Your task to perform on an android device: toggle notification dots Image 0: 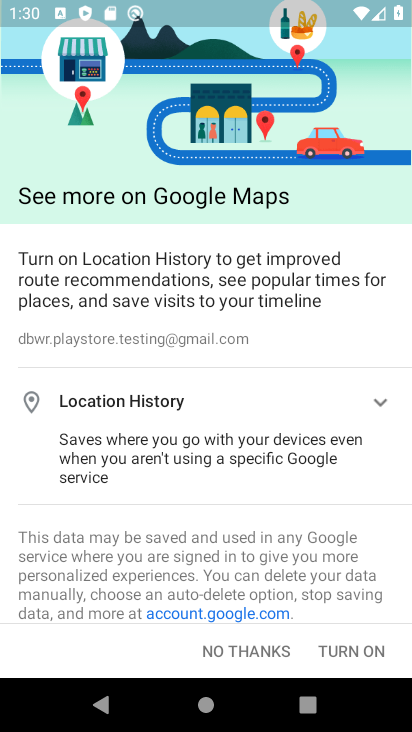
Step 0: click (326, 653)
Your task to perform on an android device: toggle notification dots Image 1: 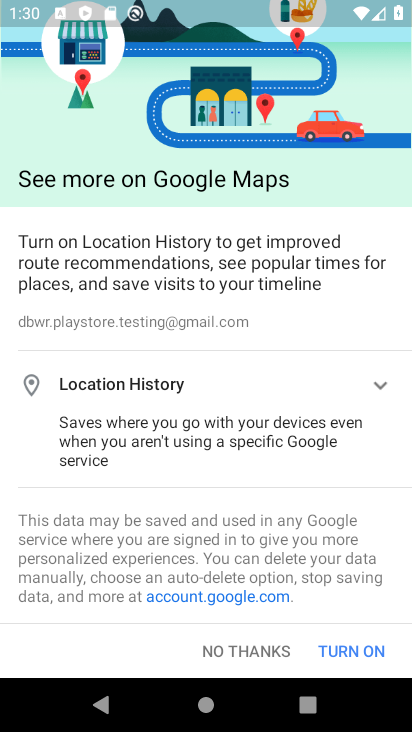
Step 1: click (326, 653)
Your task to perform on an android device: toggle notification dots Image 2: 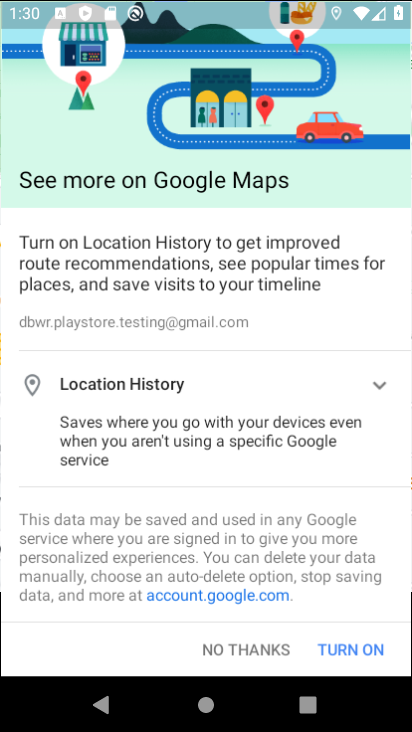
Step 2: click (271, 648)
Your task to perform on an android device: toggle notification dots Image 3: 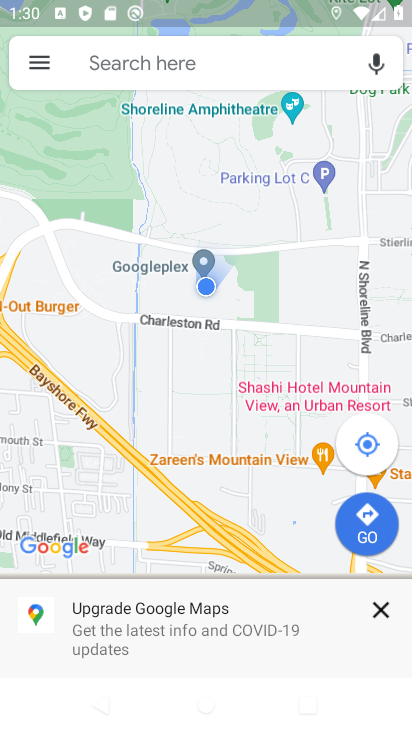
Step 3: click (381, 609)
Your task to perform on an android device: toggle notification dots Image 4: 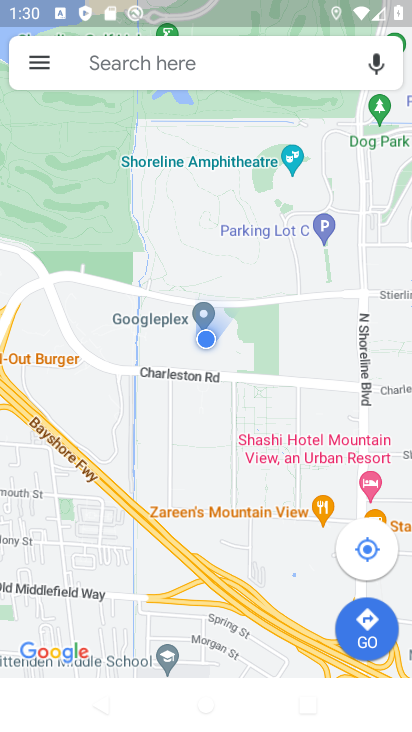
Step 4: press home button
Your task to perform on an android device: toggle notification dots Image 5: 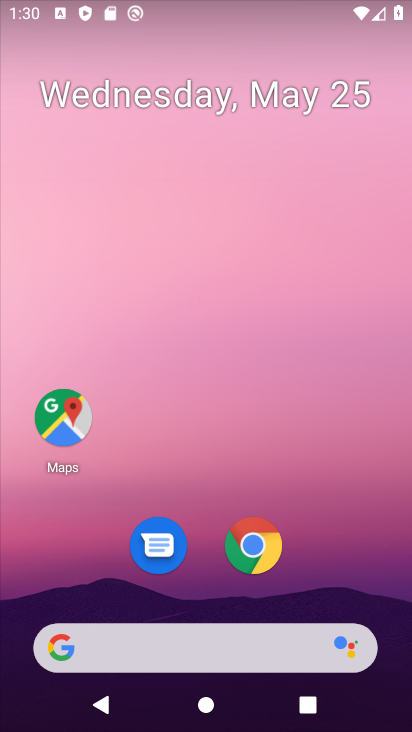
Step 5: drag from (341, 583) to (278, 84)
Your task to perform on an android device: toggle notification dots Image 6: 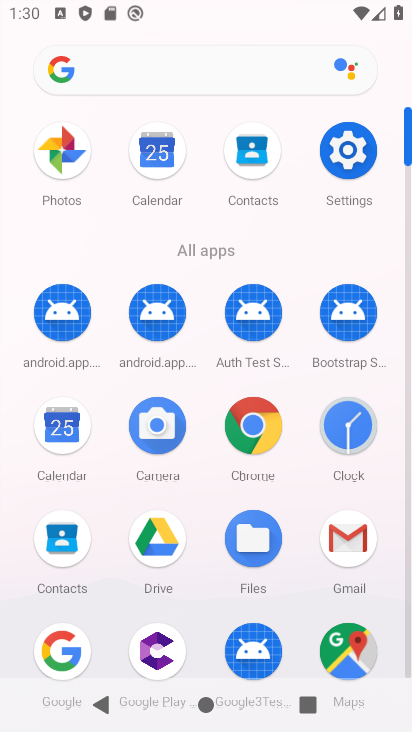
Step 6: click (334, 153)
Your task to perform on an android device: toggle notification dots Image 7: 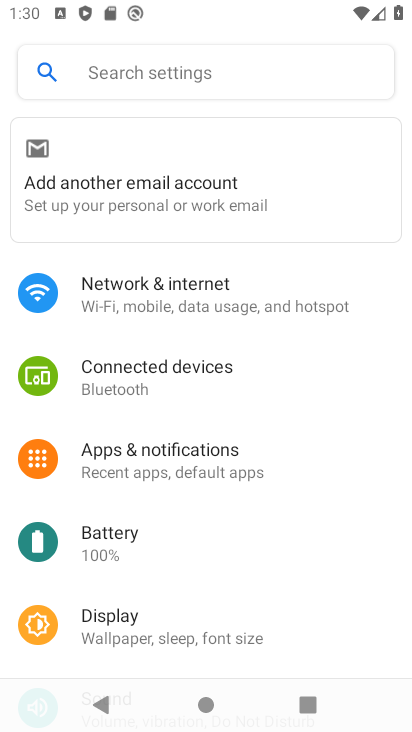
Step 7: click (272, 465)
Your task to perform on an android device: toggle notification dots Image 8: 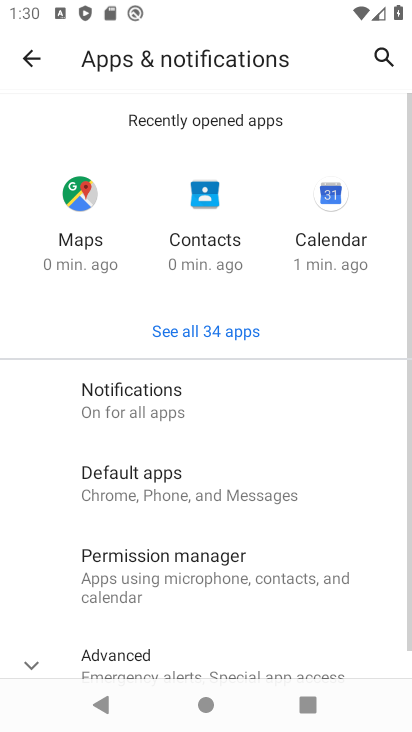
Step 8: drag from (263, 536) to (263, 341)
Your task to perform on an android device: toggle notification dots Image 9: 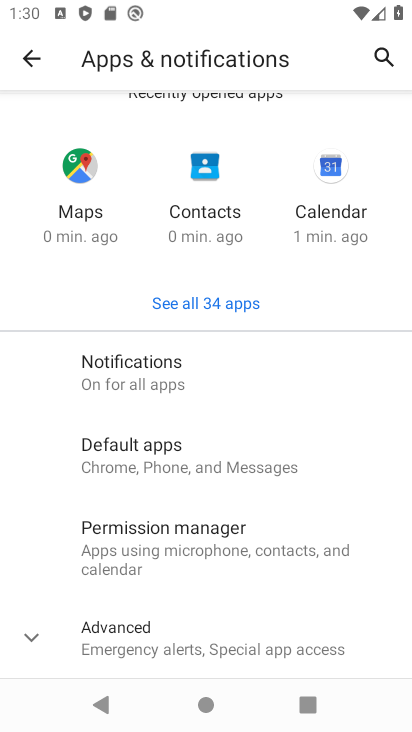
Step 9: click (263, 341)
Your task to perform on an android device: toggle notification dots Image 10: 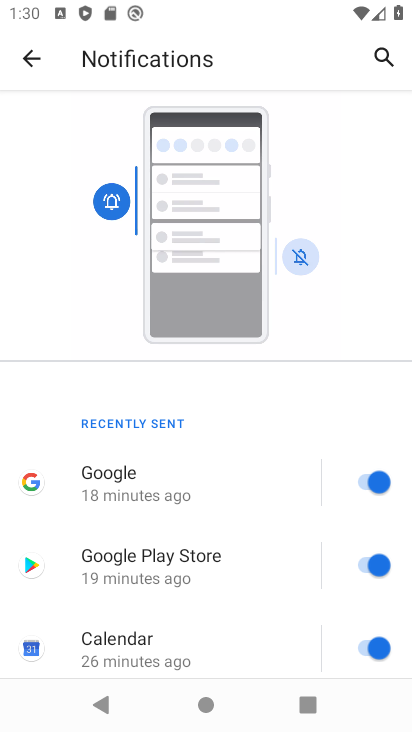
Step 10: drag from (306, 578) to (243, 154)
Your task to perform on an android device: toggle notification dots Image 11: 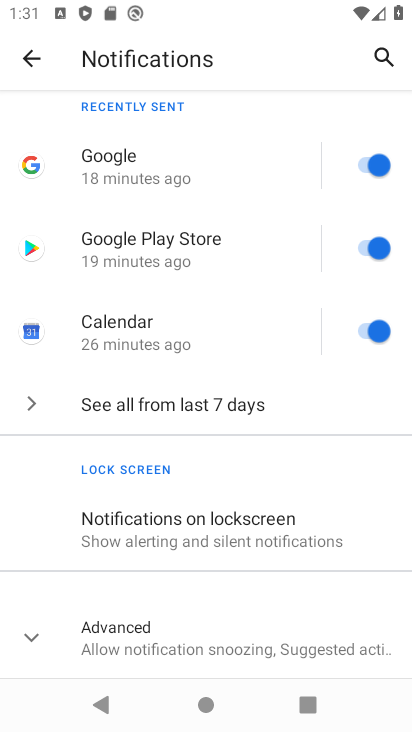
Step 11: click (237, 648)
Your task to perform on an android device: toggle notification dots Image 12: 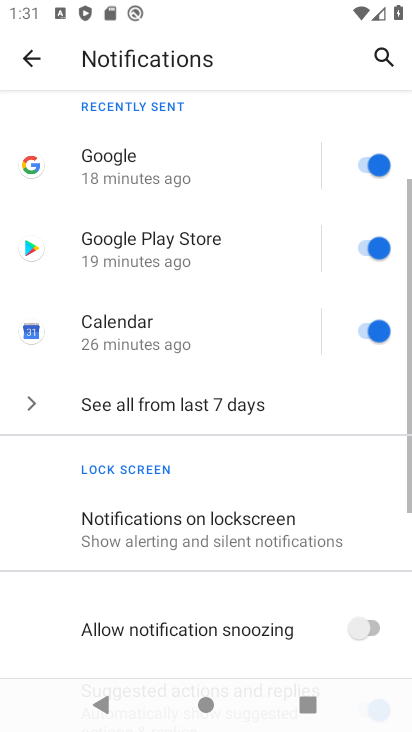
Step 12: task complete